Your task to perform on an android device: Open my contact list Image 0: 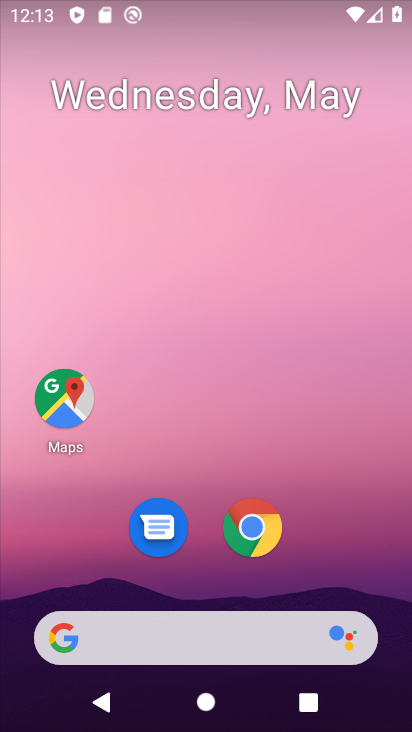
Step 0: drag from (320, 544) to (213, 32)
Your task to perform on an android device: Open my contact list Image 1: 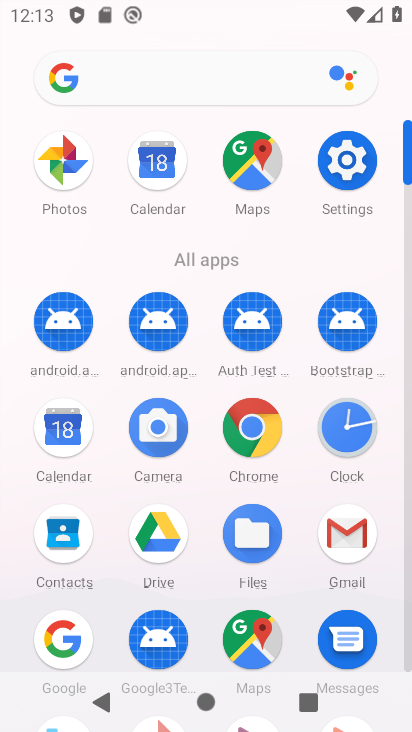
Step 1: click (68, 529)
Your task to perform on an android device: Open my contact list Image 2: 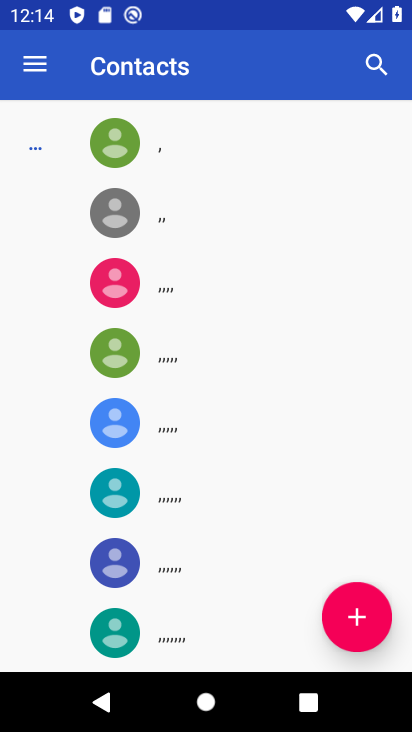
Step 2: task complete